Your task to perform on an android device: Go to Reddit.com Image 0: 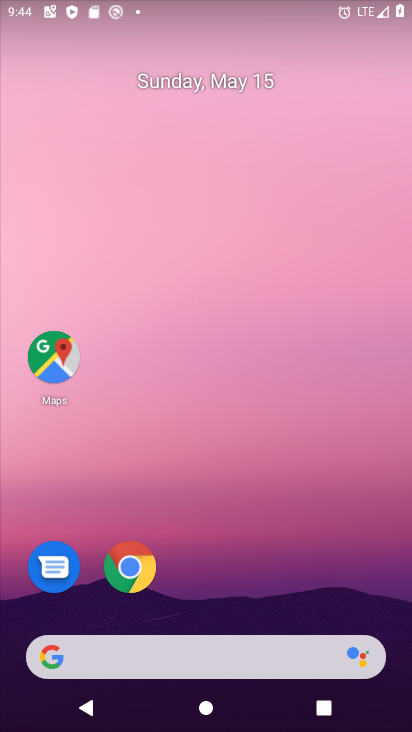
Step 0: click (269, 668)
Your task to perform on an android device: Go to Reddit.com Image 1: 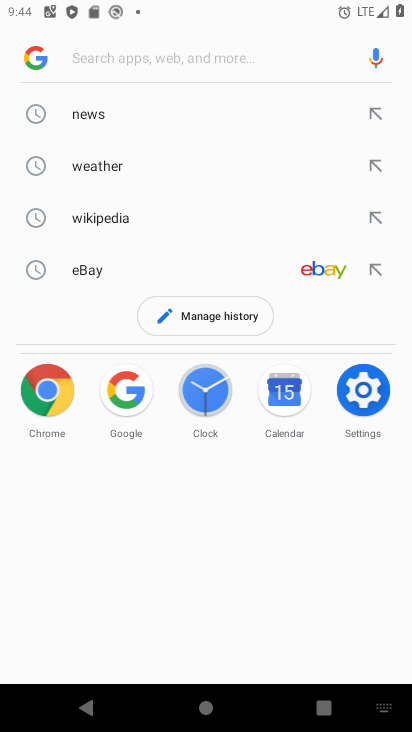
Step 1: type "reddit.com"
Your task to perform on an android device: Go to Reddit.com Image 2: 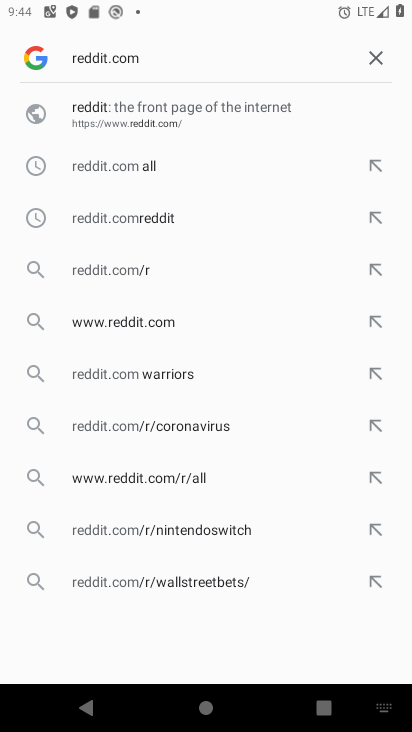
Step 2: click (131, 111)
Your task to perform on an android device: Go to Reddit.com Image 3: 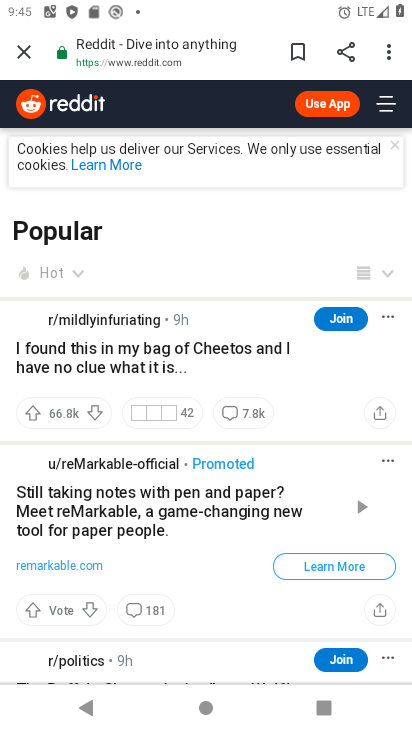
Step 3: task complete